Your task to perform on an android device: turn on notifications settings in the gmail app Image 0: 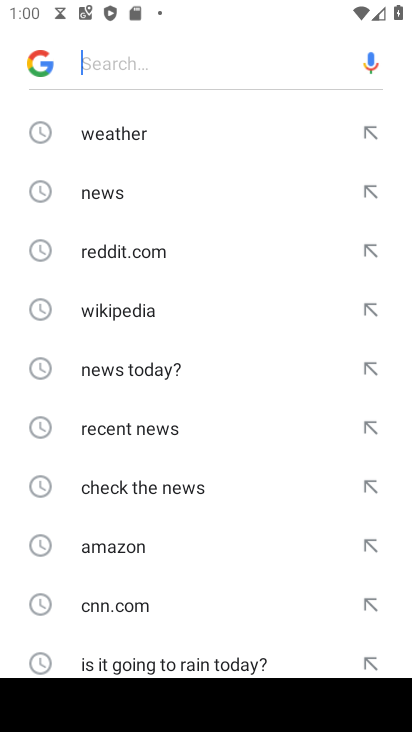
Step 0: press home button
Your task to perform on an android device: turn on notifications settings in the gmail app Image 1: 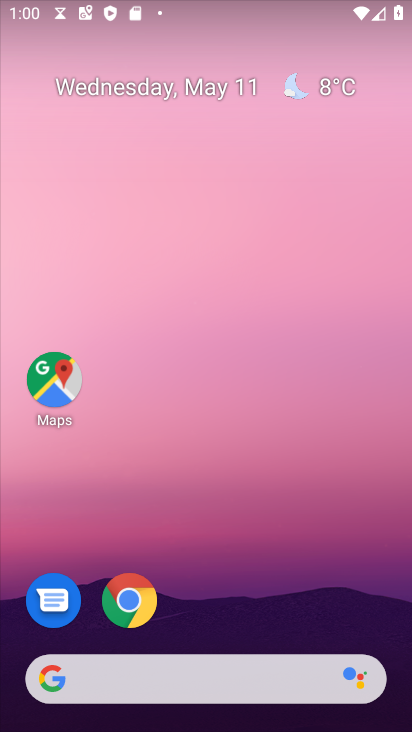
Step 1: drag from (250, 596) to (194, 63)
Your task to perform on an android device: turn on notifications settings in the gmail app Image 2: 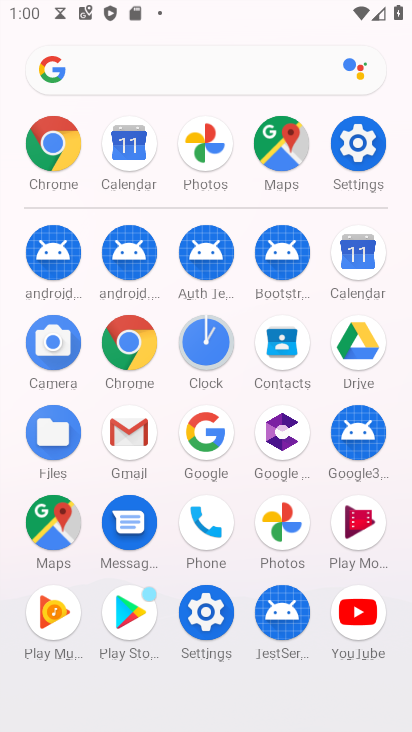
Step 2: click (130, 429)
Your task to perform on an android device: turn on notifications settings in the gmail app Image 3: 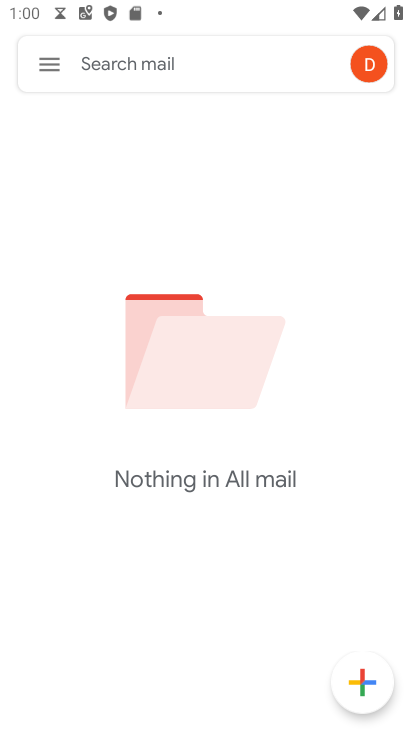
Step 3: click (46, 65)
Your task to perform on an android device: turn on notifications settings in the gmail app Image 4: 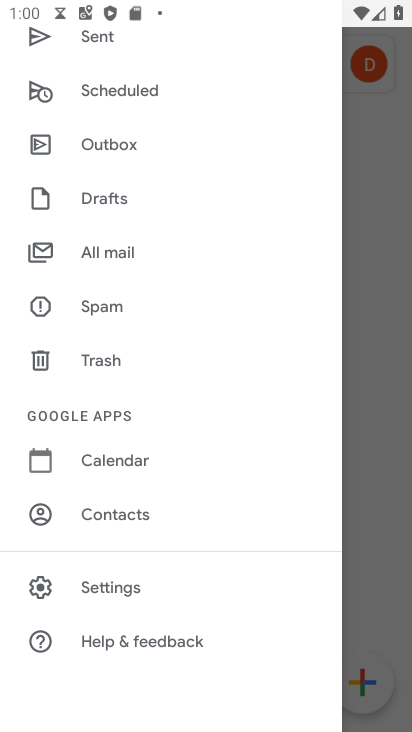
Step 4: click (109, 588)
Your task to perform on an android device: turn on notifications settings in the gmail app Image 5: 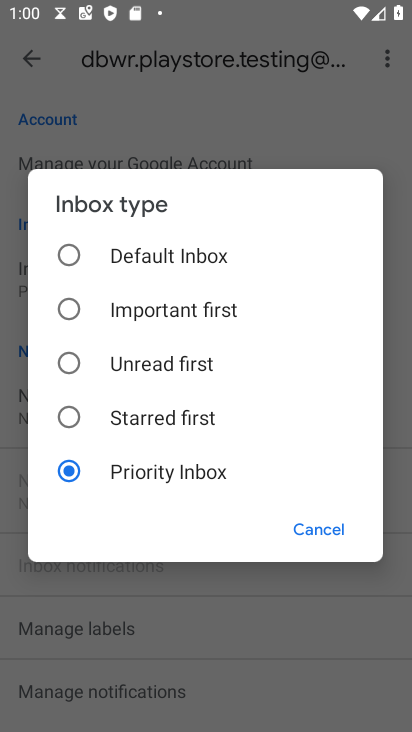
Step 5: click (335, 525)
Your task to perform on an android device: turn on notifications settings in the gmail app Image 6: 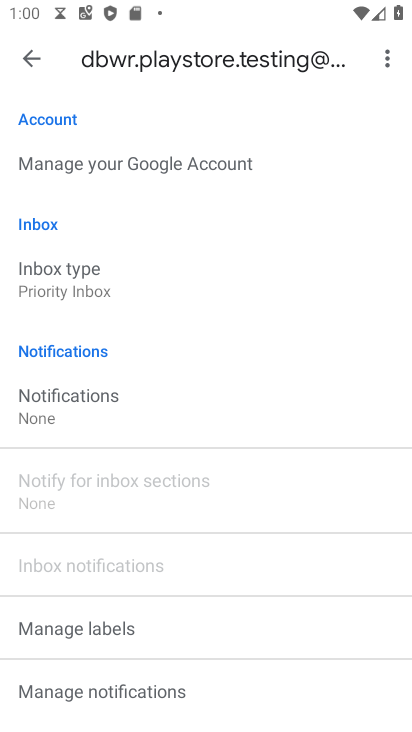
Step 6: drag from (189, 637) to (213, 477)
Your task to perform on an android device: turn on notifications settings in the gmail app Image 7: 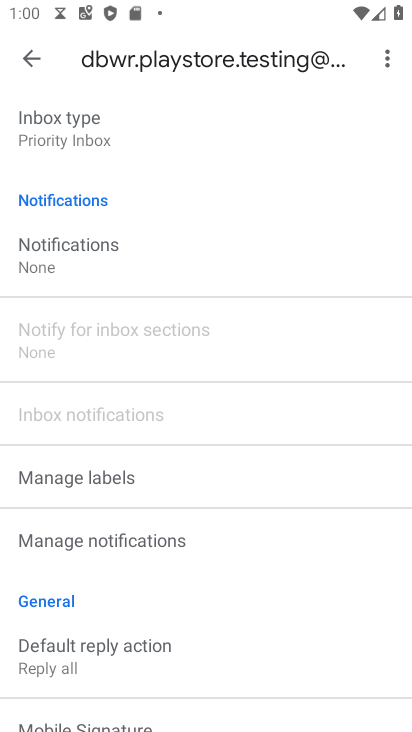
Step 7: click (179, 534)
Your task to perform on an android device: turn on notifications settings in the gmail app Image 8: 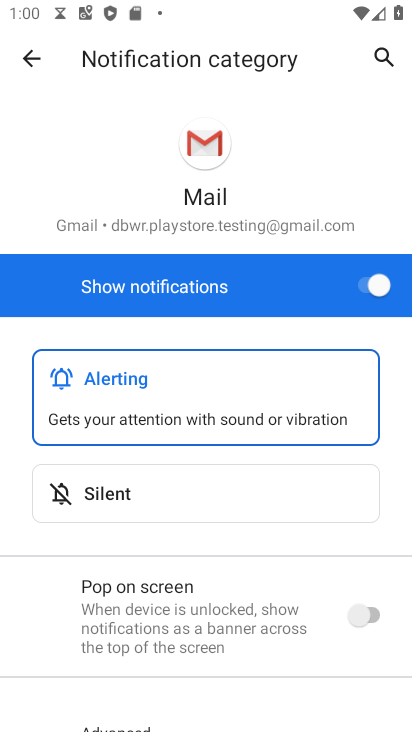
Step 8: task complete